Your task to perform on an android device: change timer sound Image 0: 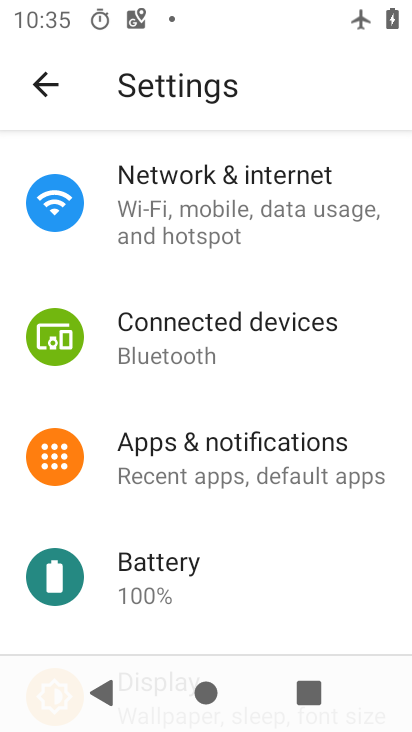
Step 0: press home button
Your task to perform on an android device: change timer sound Image 1: 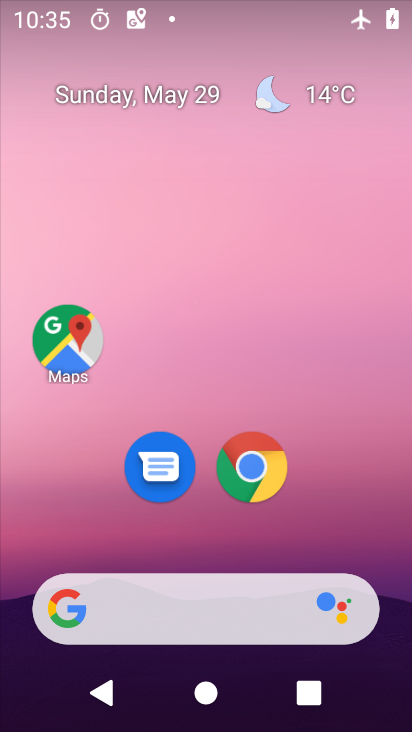
Step 1: drag from (170, 553) to (180, 200)
Your task to perform on an android device: change timer sound Image 2: 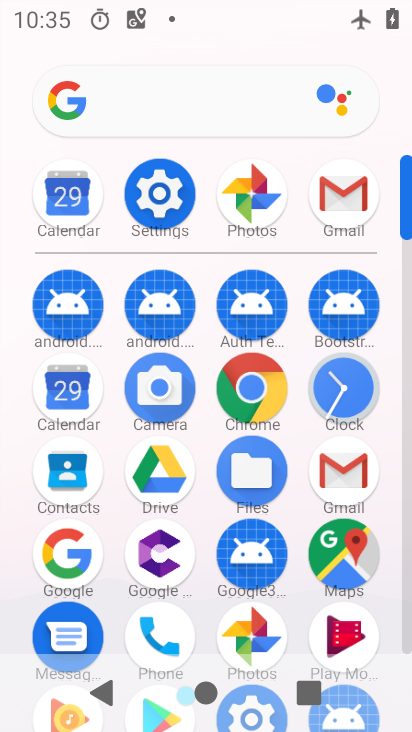
Step 2: click (358, 399)
Your task to perform on an android device: change timer sound Image 3: 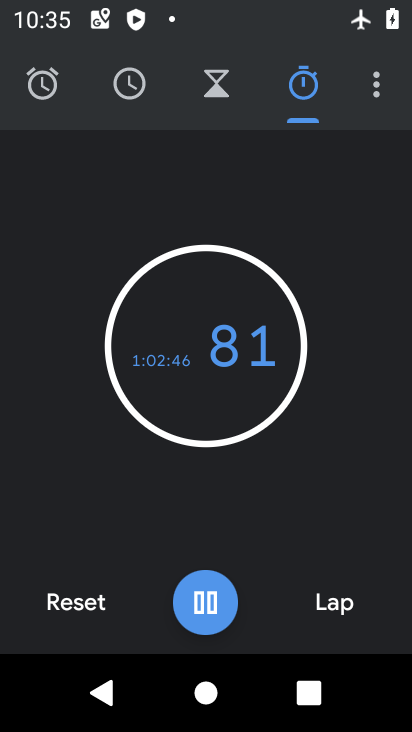
Step 3: click (369, 92)
Your task to perform on an android device: change timer sound Image 4: 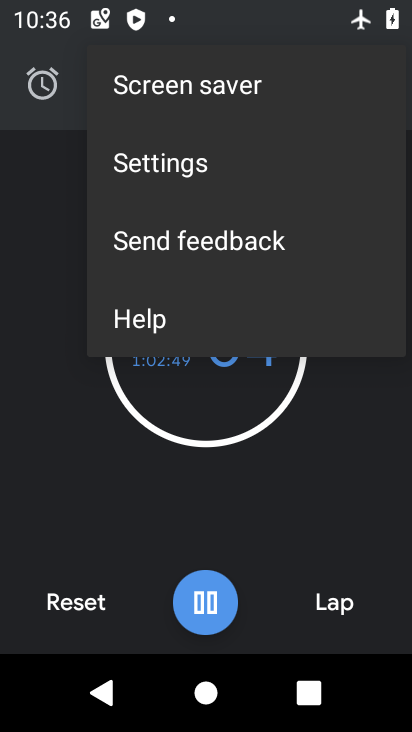
Step 4: click (210, 169)
Your task to perform on an android device: change timer sound Image 5: 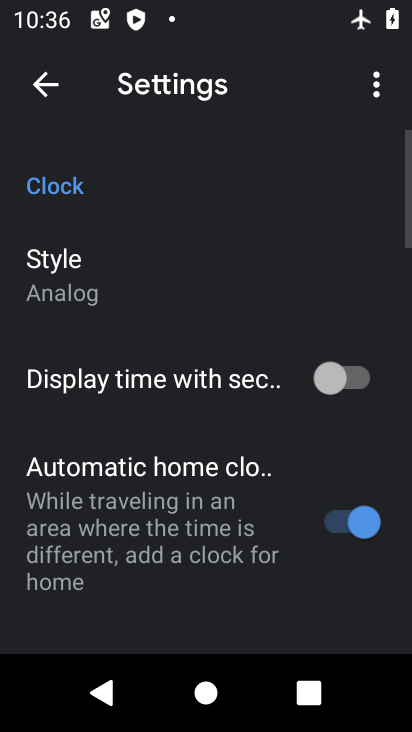
Step 5: drag from (177, 444) to (194, 179)
Your task to perform on an android device: change timer sound Image 6: 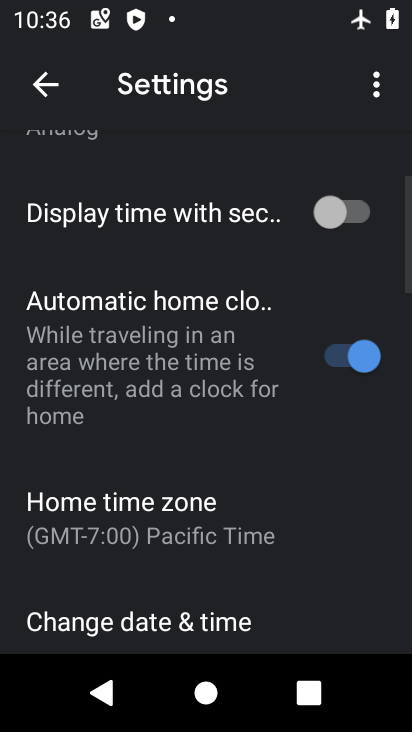
Step 6: drag from (218, 488) to (208, 279)
Your task to perform on an android device: change timer sound Image 7: 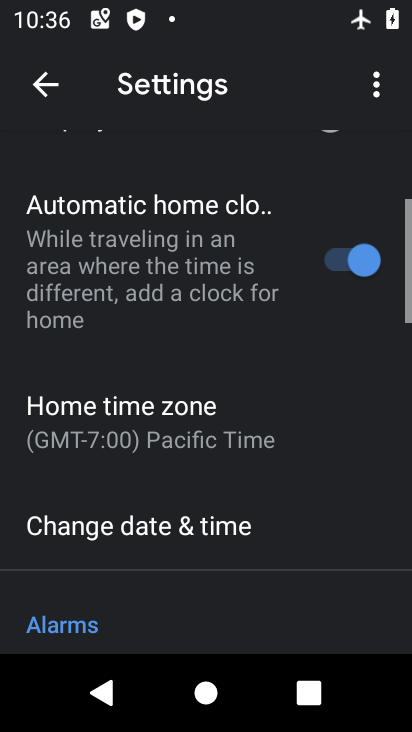
Step 7: drag from (196, 545) to (201, 275)
Your task to perform on an android device: change timer sound Image 8: 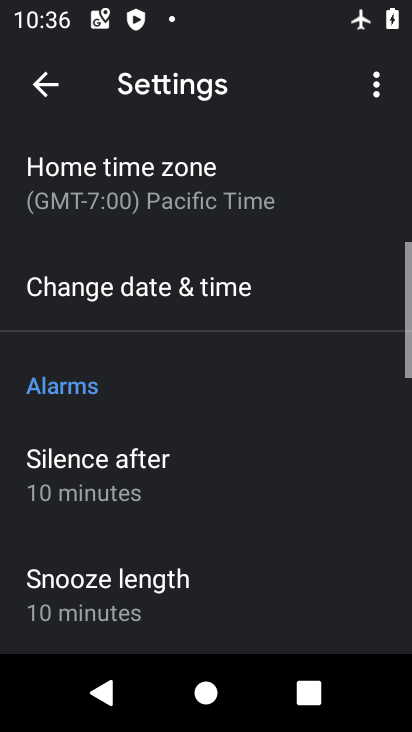
Step 8: drag from (213, 545) to (197, 280)
Your task to perform on an android device: change timer sound Image 9: 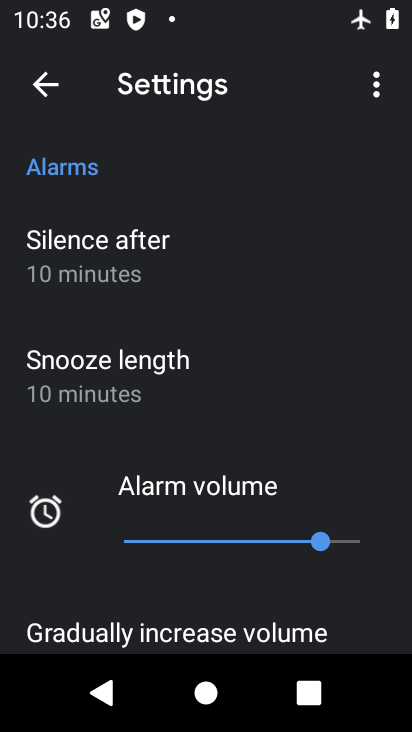
Step 9: drag from (190, 579) to (177, 277)
Your task to perform on an android device: change timer sound Image 10: 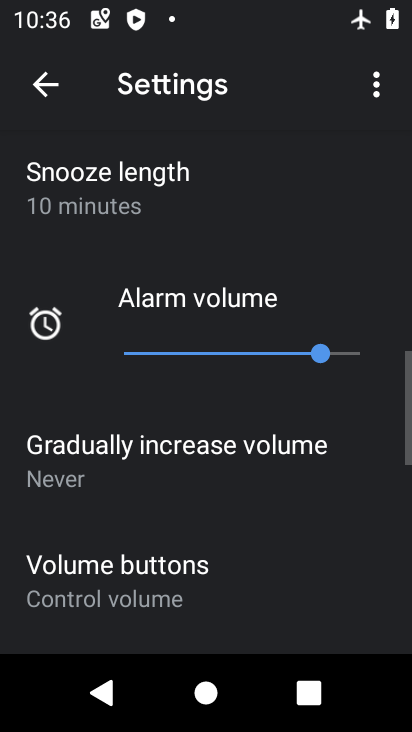
Step 10: drag from (179, 581) to (179, 277)
Your task to perform on an android device: change timer sound Image 11: 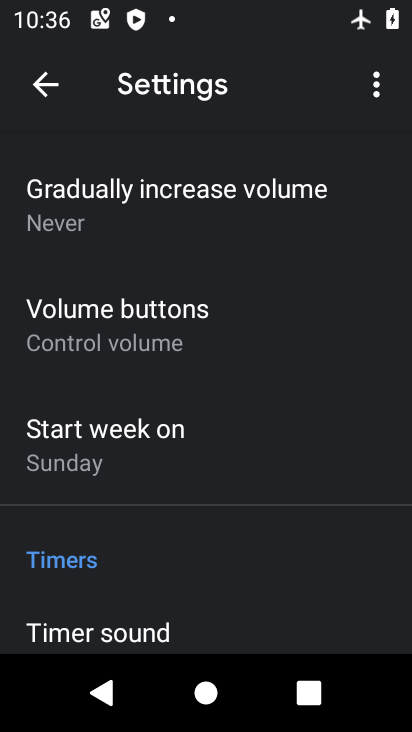
Step 11: drag from (179, 571) to (173, 338)
Your task to perform on an android device: change timer sound Image 12: 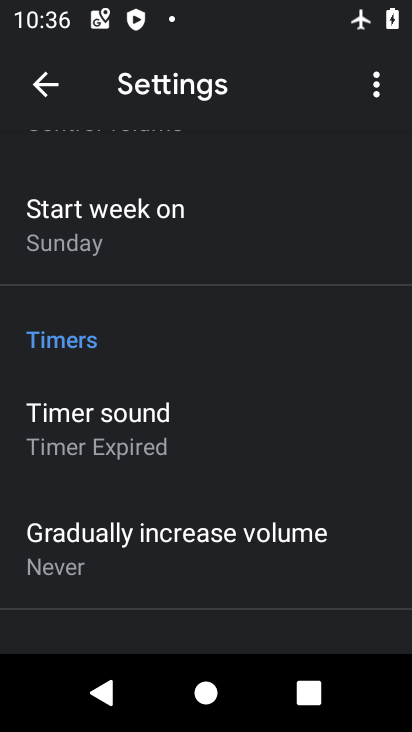
Step 12: click (154, 423)
Your task to perform on an android device: change timer sound Image 13: 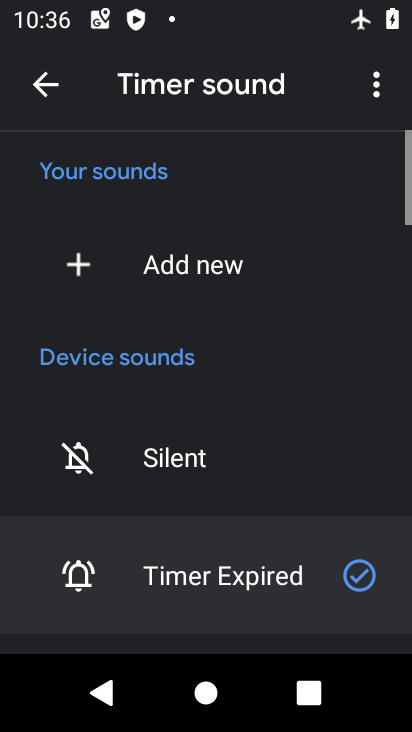
Step 13: drag from (196, 471) to (205, 294)
Your task to perform on an android device: change timer sound Image 14: 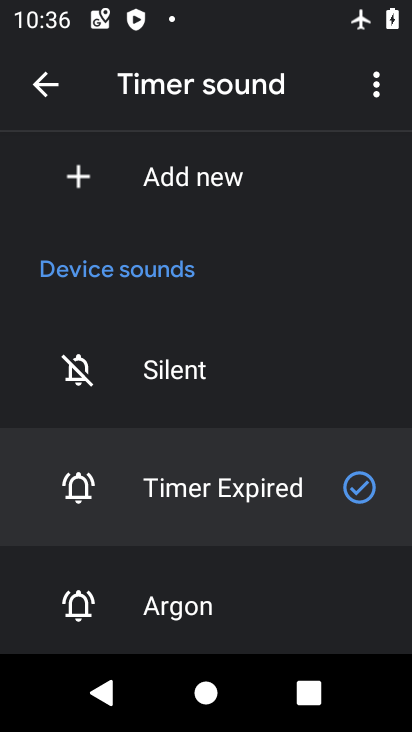
Step 14: click (224, 596)
Your task to perform on an android device: change timer sound Image 15: 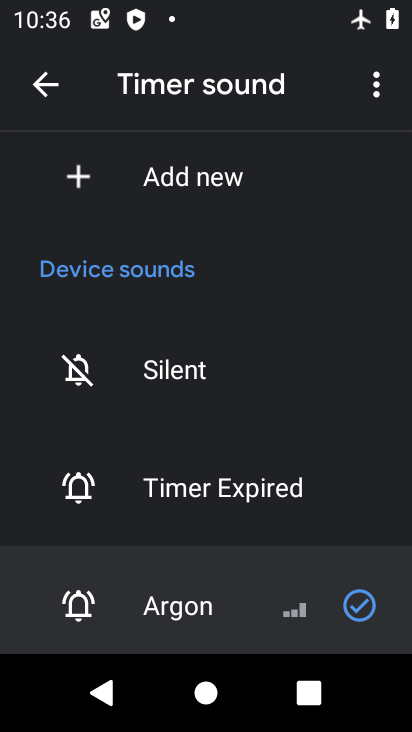
Step 15: task complete